Your task to perform on an android device: Show me popular games on the Play Store Image 0: 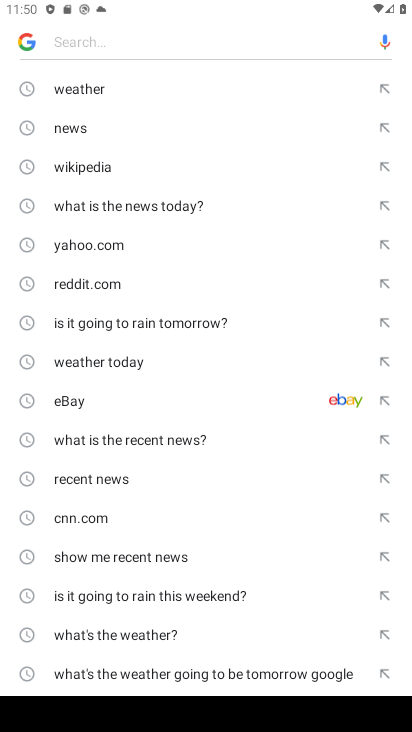
Step 0: press home button
Your task to perform on an android device: Show me popular games on the Play Store Image 1: 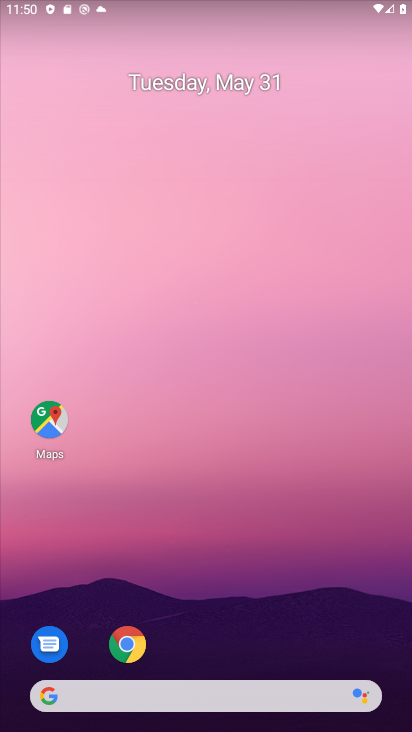
Step 1: drag from (269, 630) to (300, 145)
Your task to perform on an android device: Show me popular games on the Play Store Image 2: 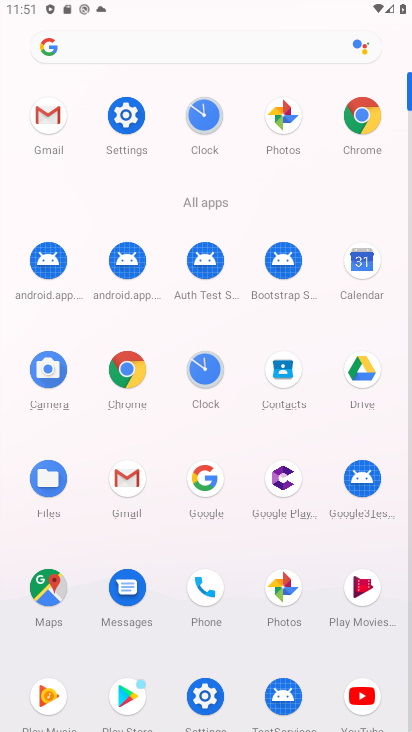
Step 2: click (150, 689)
Your task to perform on an android device: Show me popular games on the Play Store Image 3: 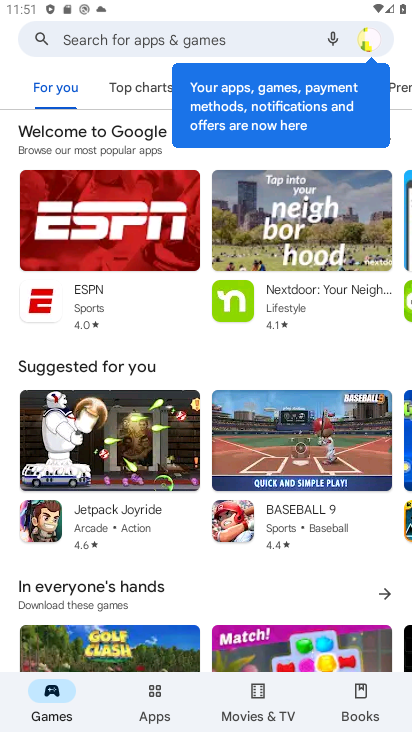
Step 3: click (154, 85)
Your task to perform on an android device: Show me popular games on the Play Store Image 4: 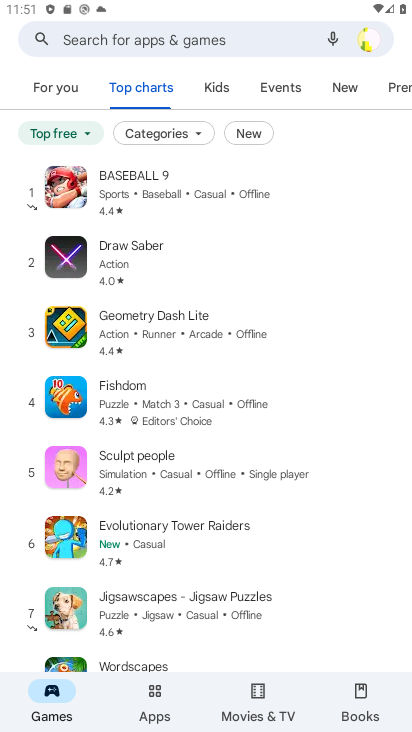
Step 4: task complete